Your task to perform on an android device: turn on translation in the chrome app Image 0: 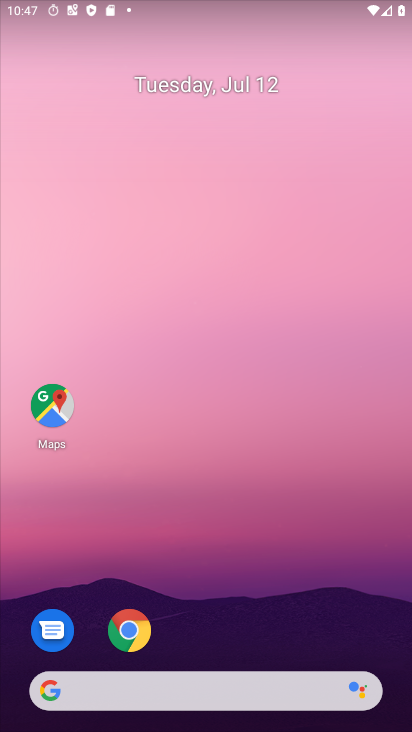
Step 0: click (127, 628)
Your task to perform on an android device: turn on translation in the chrome app Image 1: 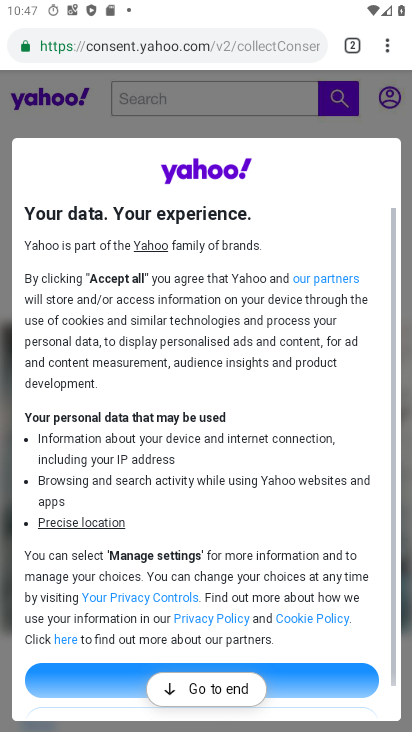
Step 1: click (382, 41)
Your task to perform on an android device: turn on translation in the chrome app Image 2: 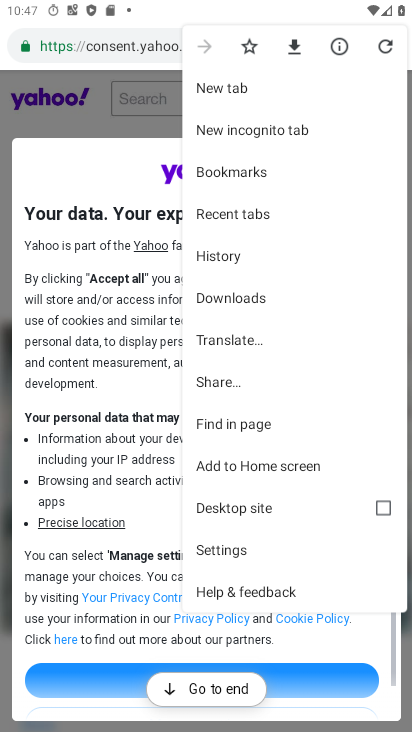
Step 2: click (232, 544)
Your task to perform on an android device: turn on translation in the chrome app Image 3: 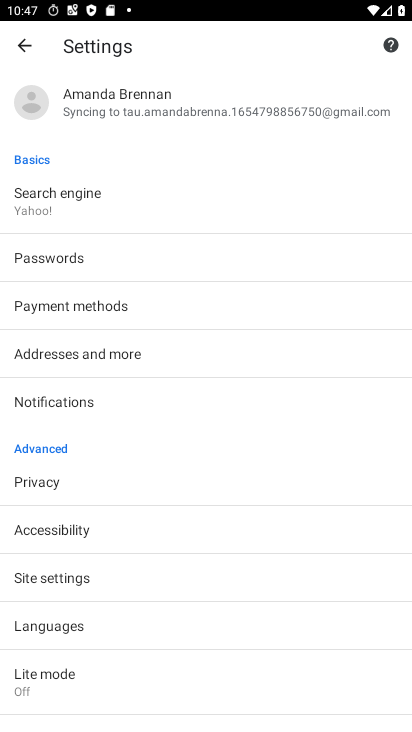
Step 3: click (58, 620)
Your task to perform on an android device: turn on translation in the chrome app Image 4: 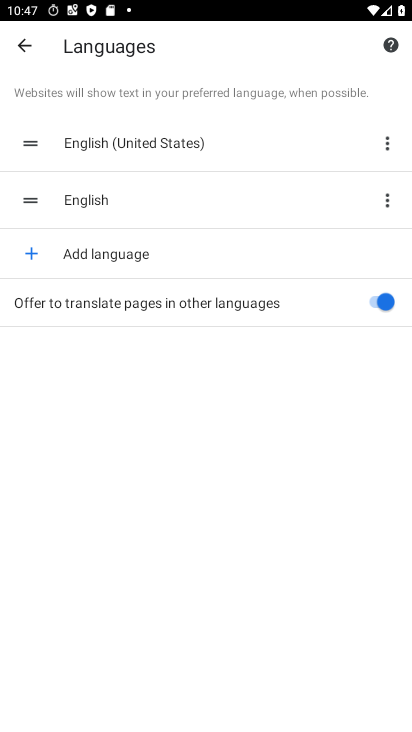
Step 4: task complete